Your task to perform on an android device: turn off notifications in google photos Image 0: 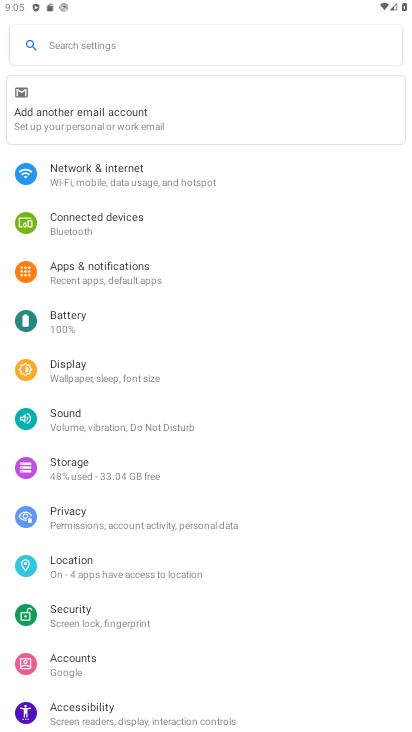
Step 0: press home button
Your task to perform on an android device: turn off notifications in google photos Image 1: 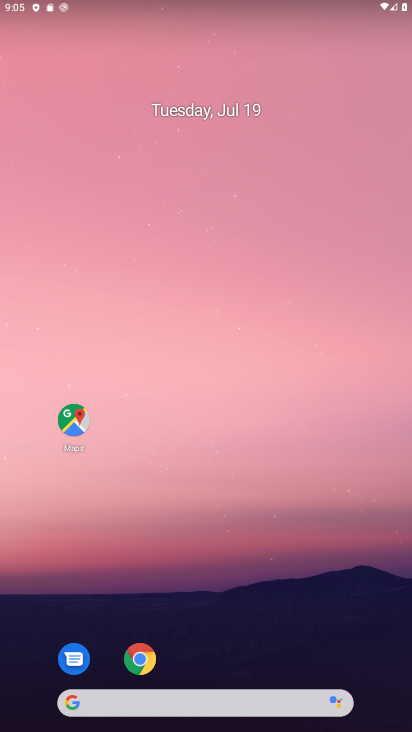
Step 1: drag from (232, 656) to (262, 265)
Your task to perform on an android device: turn off notifications in google photos Image 2: 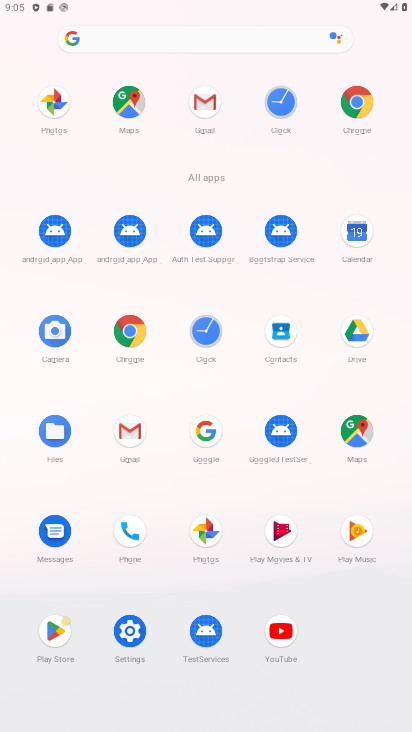
Step 2: click (209, 531)
Your task to perform on an android device: turn off notifications in google photos Image 3: 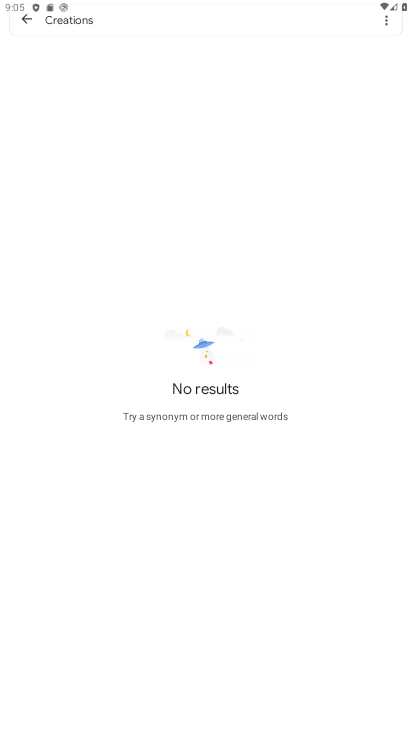
Step 3: press back button
Your task to perform on an android device: turn off notifications in google photos Image 4: 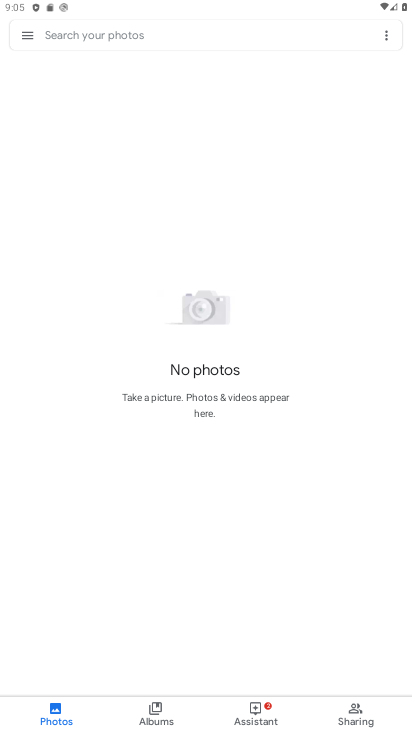
Step 4: click (34, 42)
Your task to perform on an android device: turn off notifications in google photos Image 5: 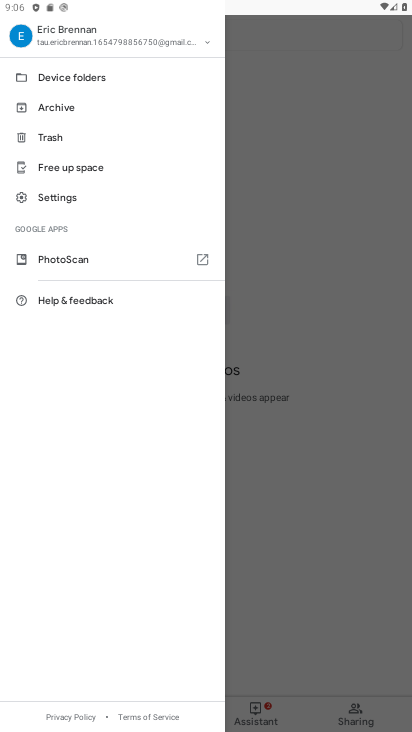
Step 5: click (84, 210)
Your task to perform on an android device: turn off notifications in google photos Image 6: 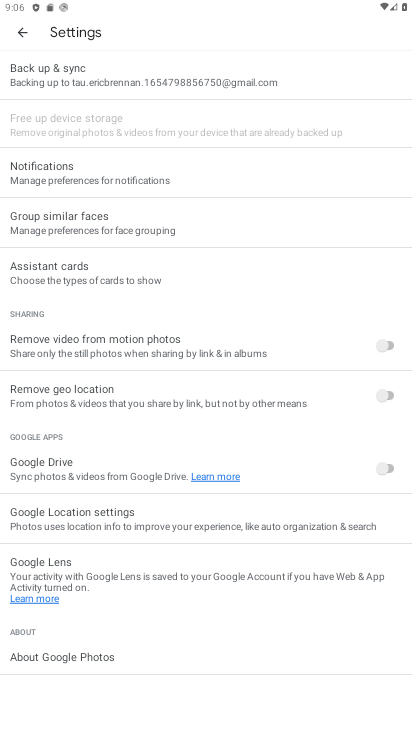
Step 6: click (115, 174)
Your task to perform on an android device: turn off notifications in google photos Image 7: 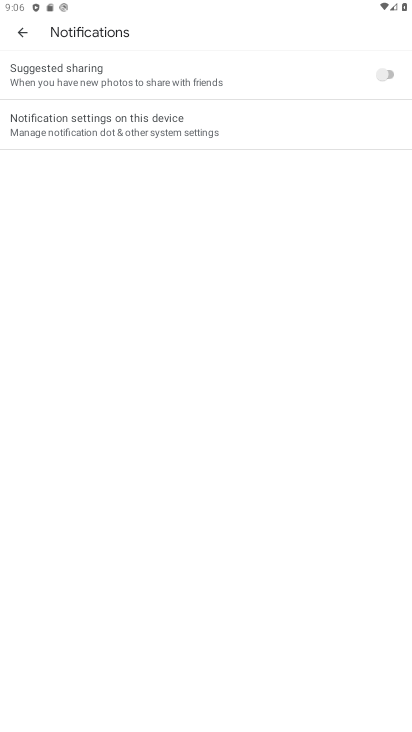
Step 7: click (341, 120)
Your task to perform on an android device: turn off notifications in google photos Image 8: 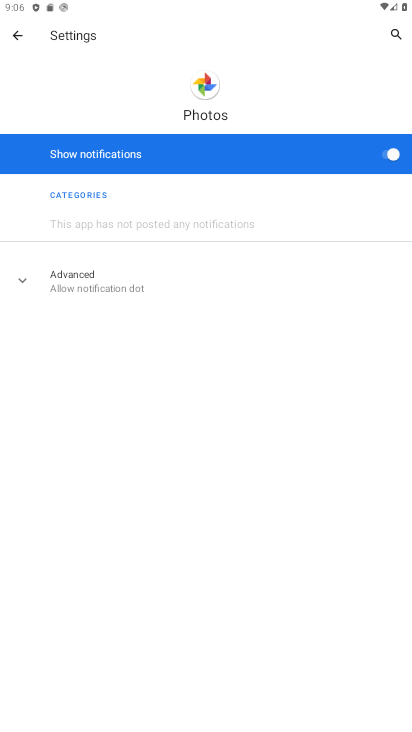
Step 8: click (392, 155)
Your task to perform on an android device: turn off notifications in google photos Image 9: 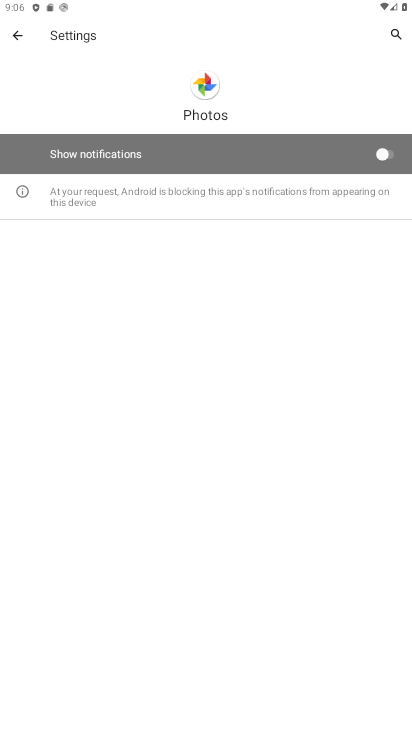
Step 9: task complete